Your task to perform on an android device: turn off picture-in-picture Image 0: 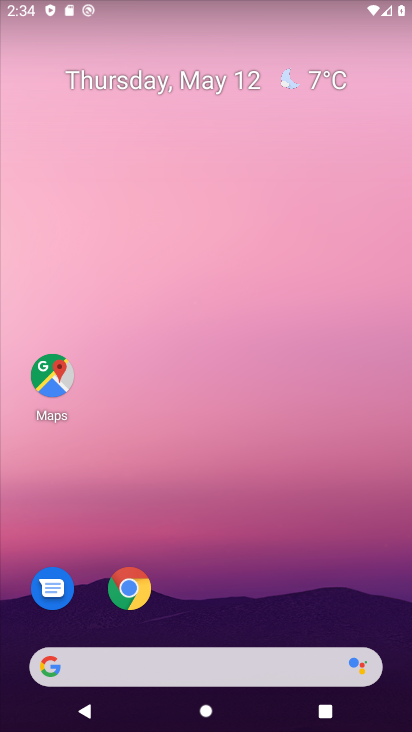
Step 0: click (227, 98)
Your task to perform on an android device: turn off picture-in-picture Image 1: 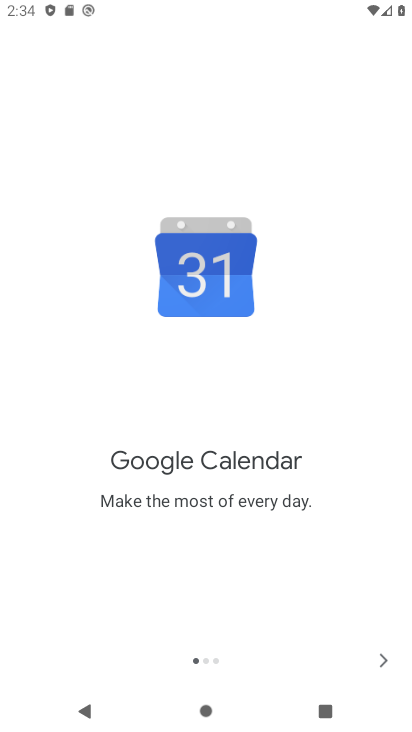
Step 1: press home button
Your task to perform on an android device: turn off picture-in-picture Image 2: 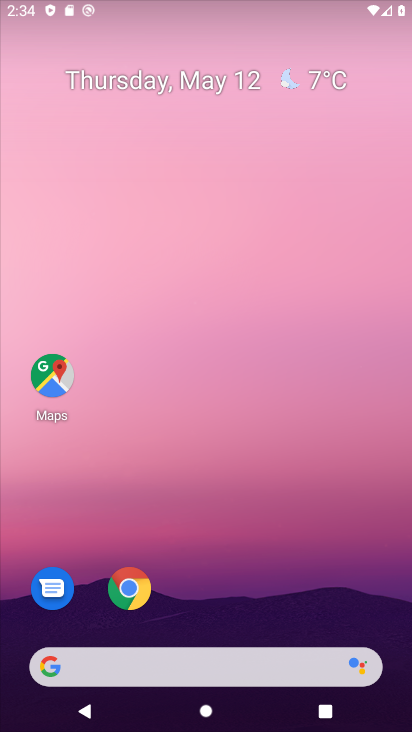
Step 2: drag from (263, 582) to (208, 82)
Your task to perform on an android device: turn off picture-in-picture Image 3: 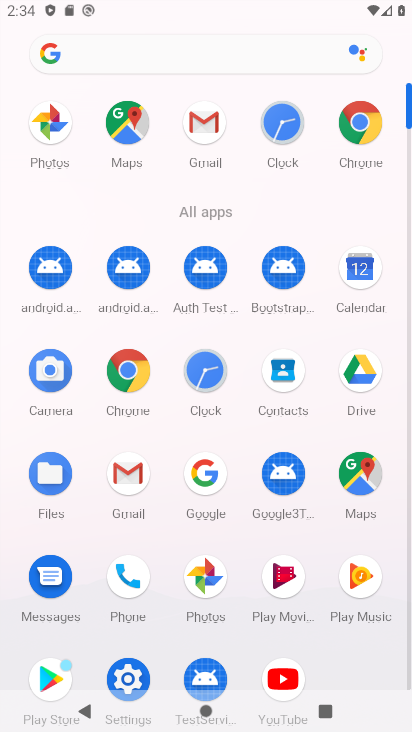
Step 3: click (125, 679)
Your task to perform on an android device: turn off picture-in-picture Image 4: 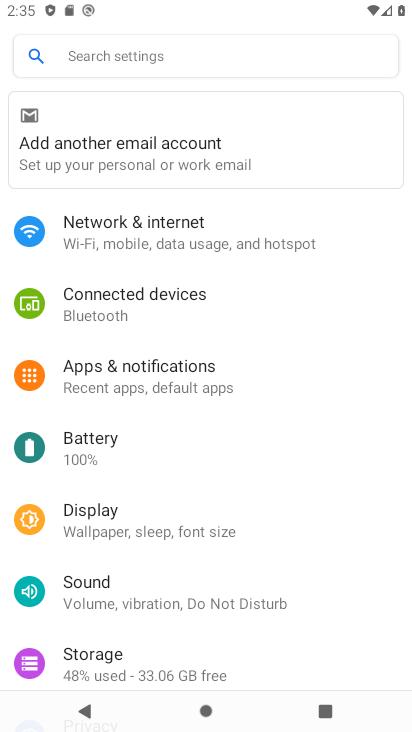
Step 4: drag from (164, 627) to (216, 166)
Your task to perform on an android device: turn off picture-in-picture Image 5: 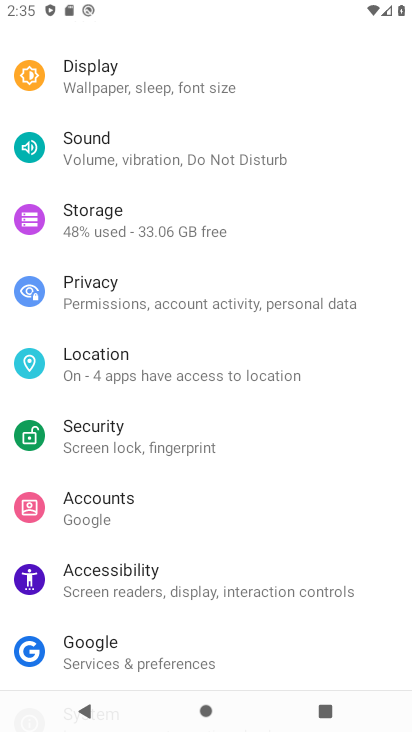
Step 5: drag from (145, 610) to (197, 246)
Your task to perform on an android device: turn off picture-in-picture Image 6: 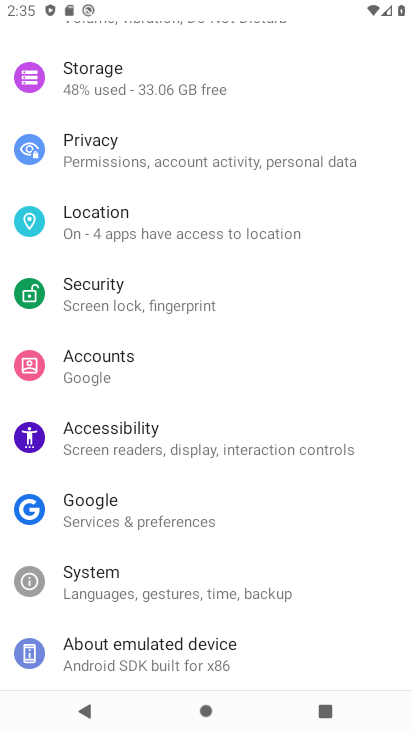
Step 6: click (185, 594)
Your task to perform on an android device: turn off picture-in-picture Image 7: 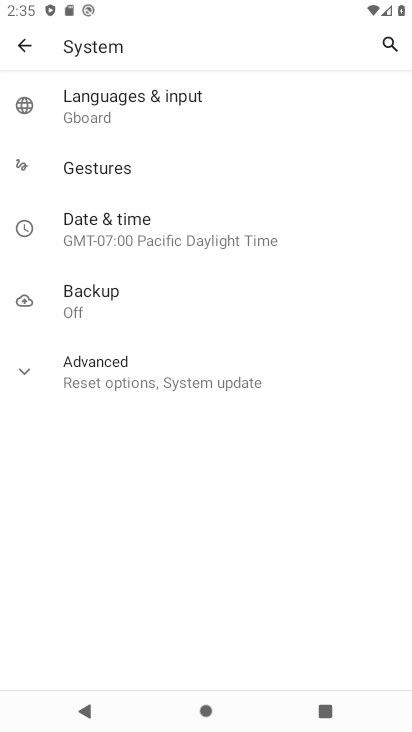
Step 7: press back button
Your task to perform on an android device: turn off picture-in-picture Image 8: 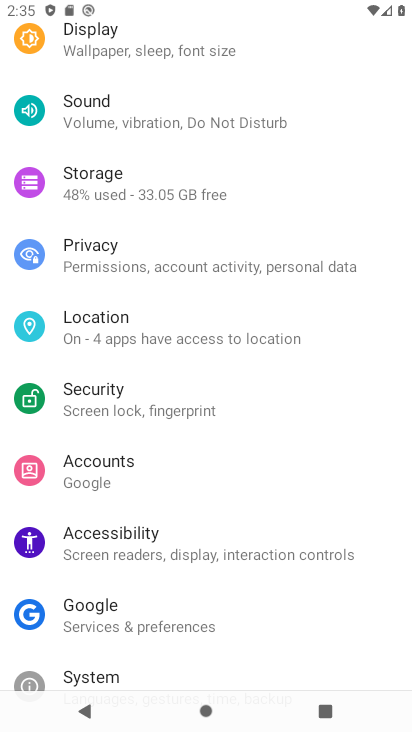
Step 8: drag from (241, 185) to (196, 444)
Your task to perform on an android device: turn off picture-in-picture Image 9: 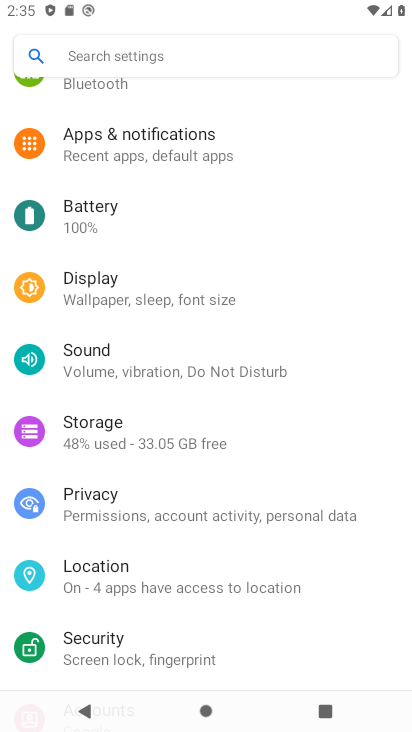
Step 9: click (126, 147)
Your task to perform on an android device: turn off picture-in-picture Image 10: 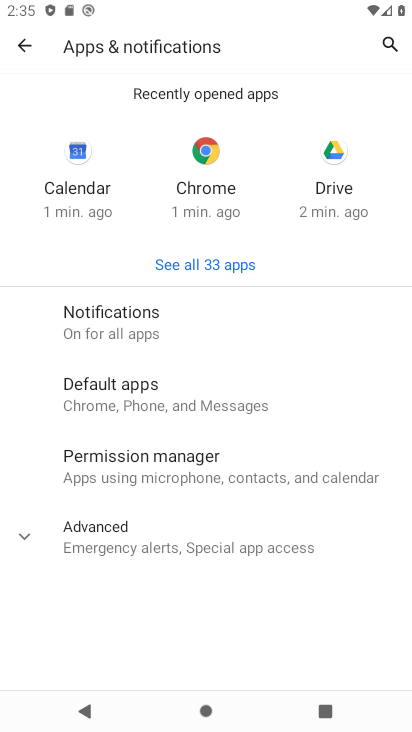
Step 10: click (132, 325)
Your task to perform on an android device: turn off picture-in-picture Image 11: 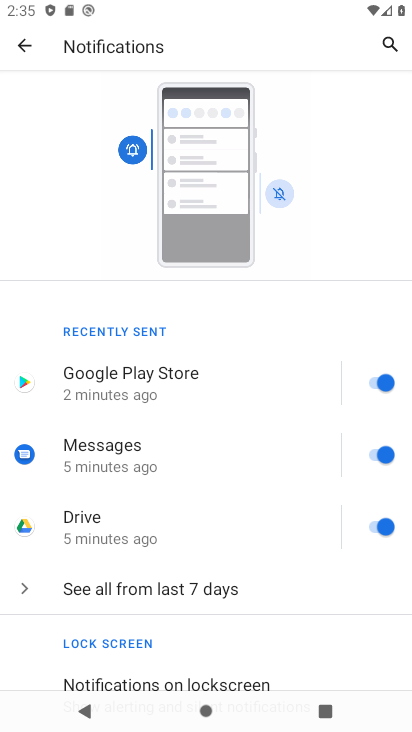
Step 11: drag from (170, 652) to (207, 422)
Your task to perform on an android device: turn off picture-in-picture Image 12: 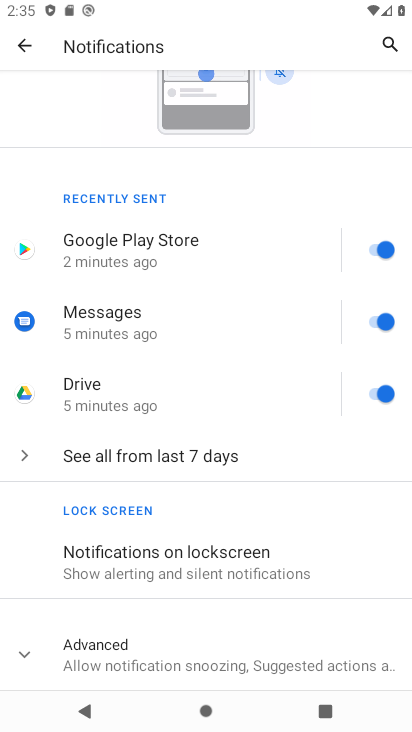
Step 12: click (141, 574)
Your task to perform on an android device: turn off picture-in-picture Image 13: 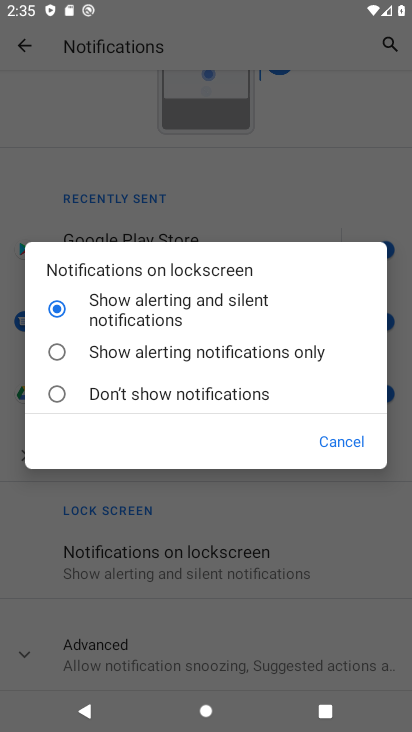
Step 13: click (344, 440)
Your task to perform on an android device: turn off picture-in-picture Image 14: 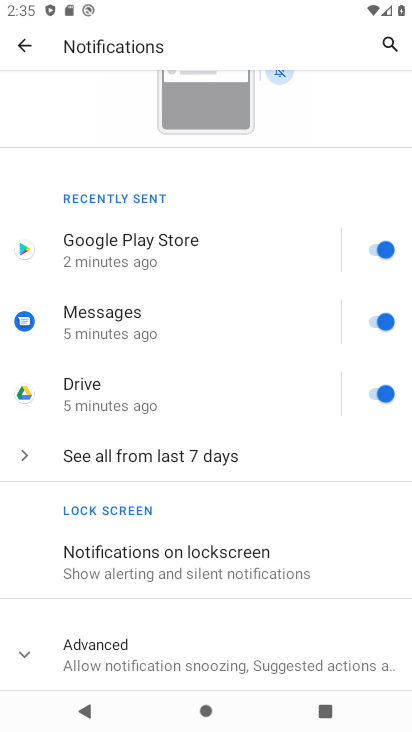
Step 14: press back button
Your task to perform on an android device: turn off picture-in-picture Image 15: 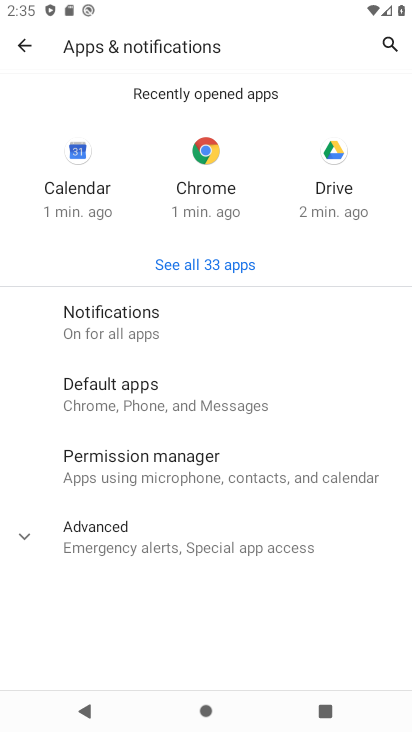
Step 15: click (109, 535)
Your task to perform on an android device: turn off picture-in-picture Image 16: 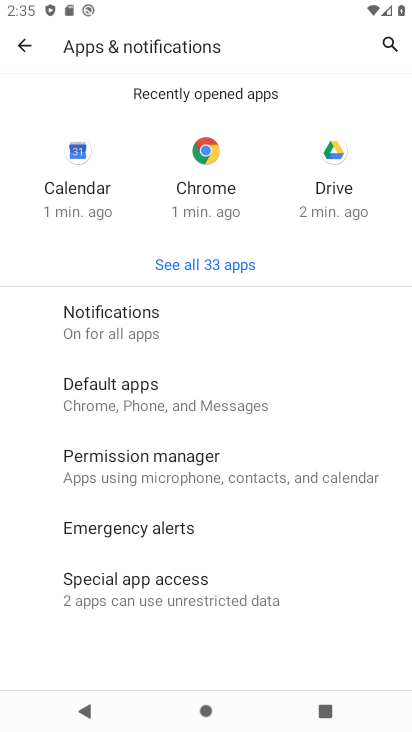
Step 16: click (162, 594)
Your task to perform on an android device: turn off picture-in-picture Image 17: 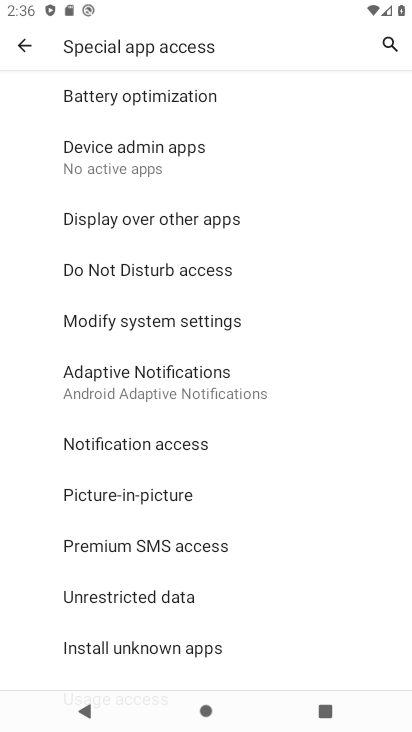
Step 17: click (159, 495)
Your task to perform on an android device: turn off picture-in-picture Image 18: 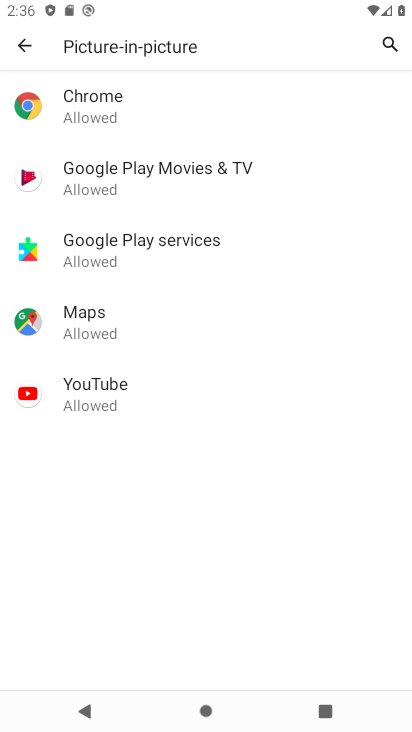
Step 18: click (93, 103)
Your task to perform on an android device: turn off picture-in-picture Image 19: 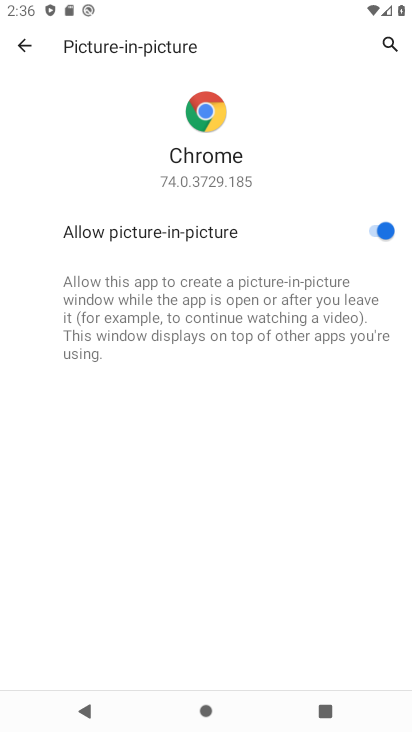
Step 19: click (377, 236)
Your task to perform on an android device: turn off picture-in-picture Image 20: 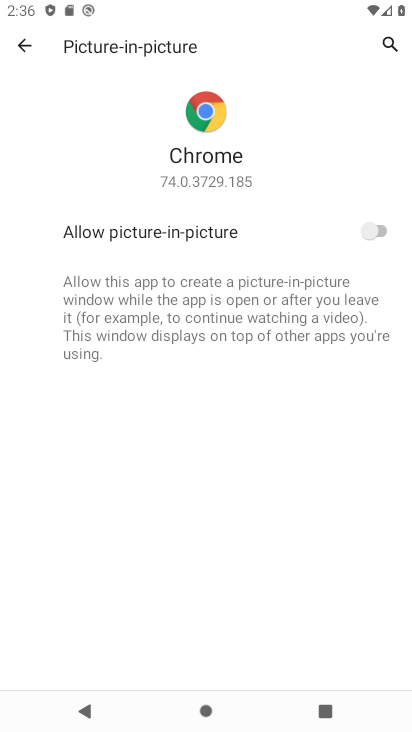
Step 20: task complete